Your task to perform on an android device: What is the recent news? Image 0: 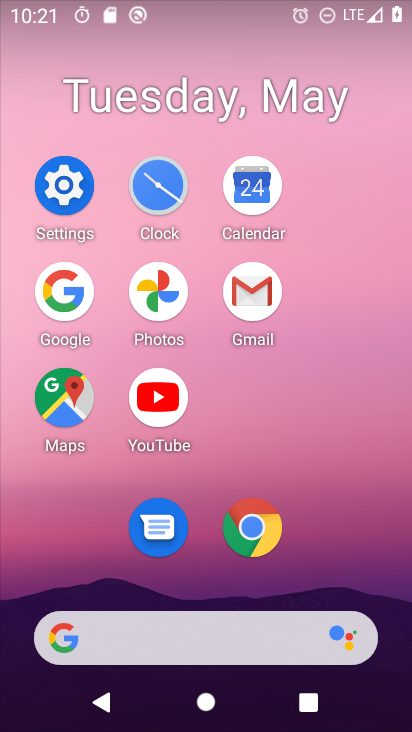
Step 0: click (84, 303)
Your task to perform on an android device: What is the recent news? Image 1: 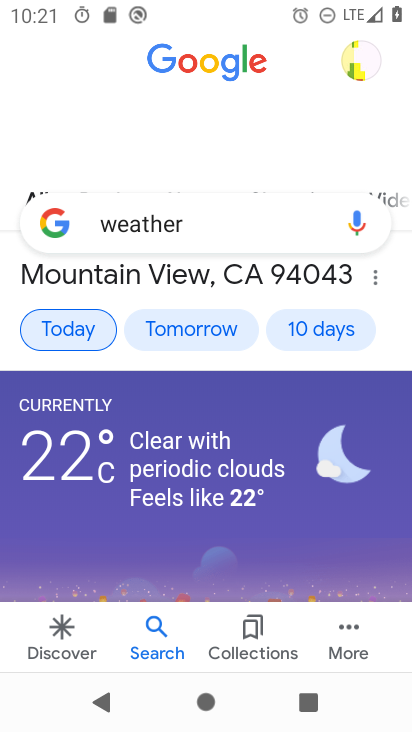
Step 1: drag from (223, 229) to (126, 229)
Your task to perform on an android device: What is the recent news? Image 2: 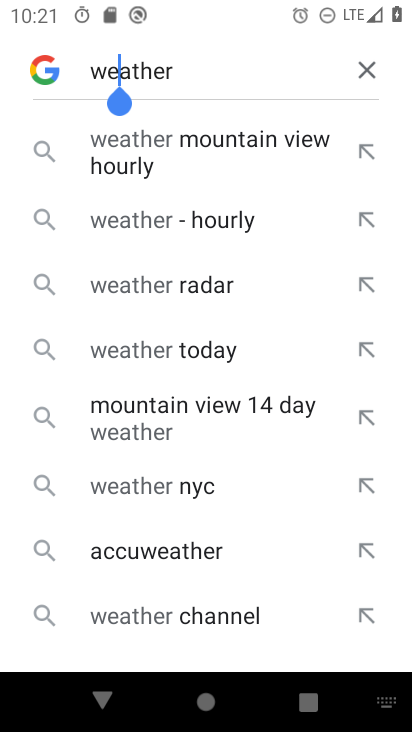
Step 2: click (368, 66)
Your task to perform on an android device: What is the recent news? Image 3: 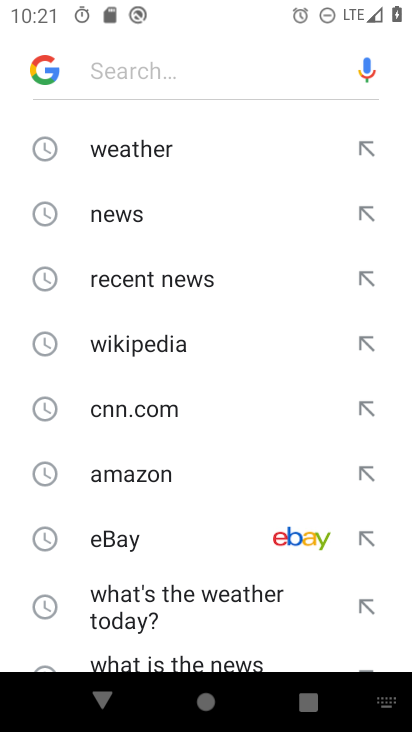
Step 3: click (133, 290)
Your task to perform on an android device: What is the recent news? Image 4: 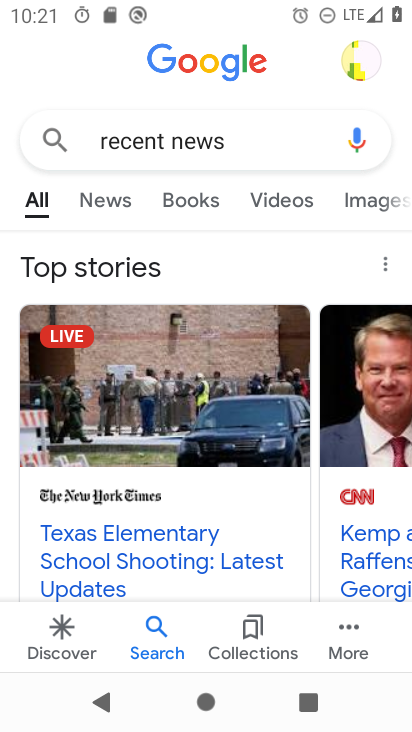
Step 4: task complete